Your task to perform on an android device: turn on improve location accuracy Image 0: 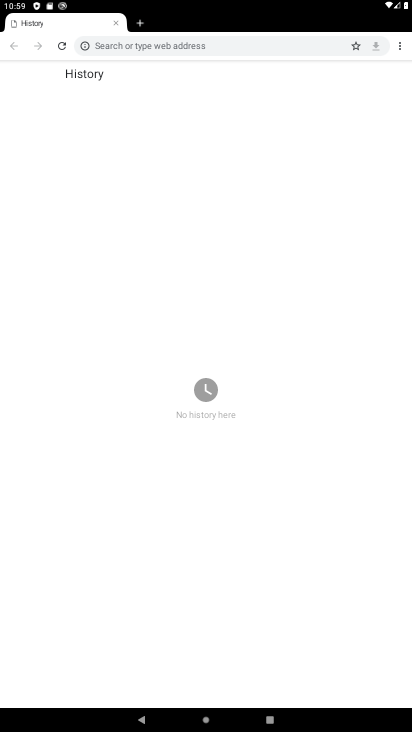
Step 0: press home button
Your task to perform on an android device: turn on improve location accuracy Image 1: 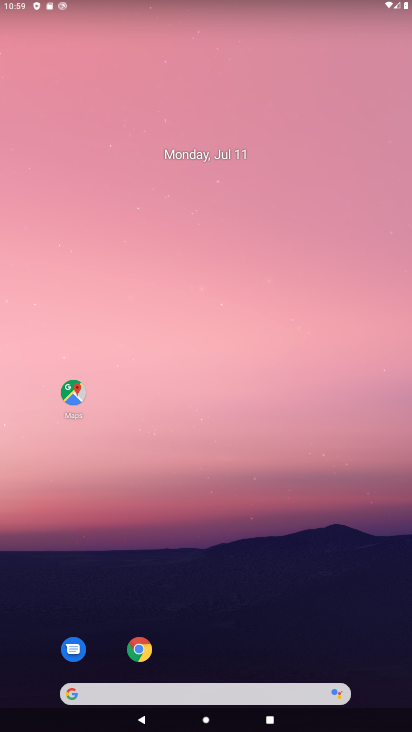
Step 1: drag from (230, 645) to (311, 93)
Your task to perform on an android device: turn on improve location accuracy Image 2: 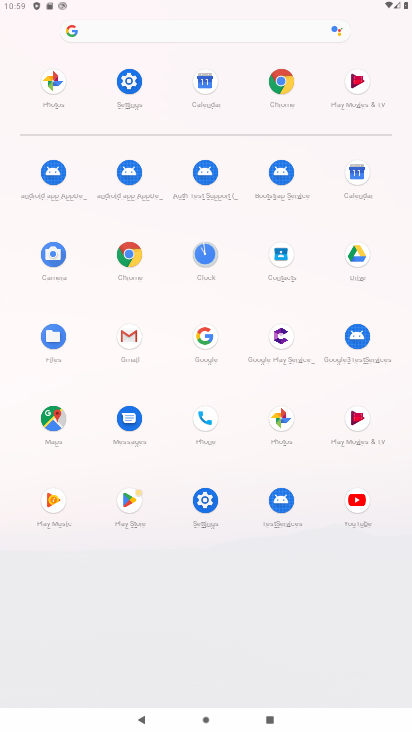
Step 2: click (131, 81)
Your task to perform on an android device: turn on improve location accuracy Image 3: 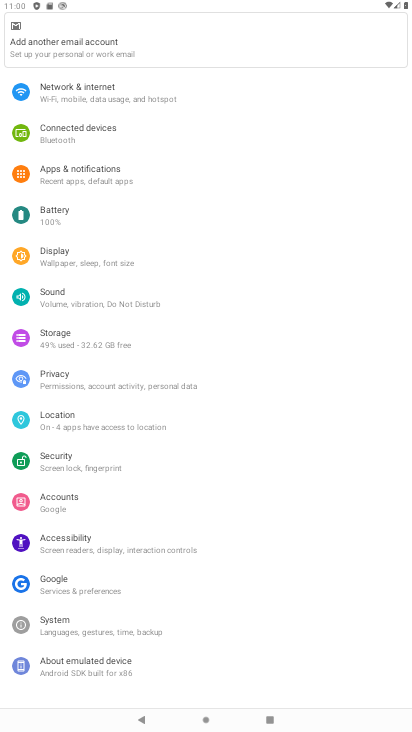
Step 3: click (58, 416)
Your task to perform on an android device: turn on improve location accuracy Image 4: 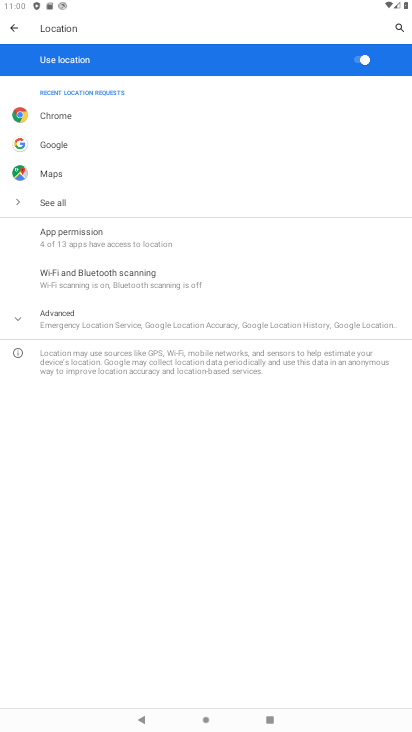
Step 4: click (64, 319)
Your task to perform on an android device: turn on improve location accuracy Image 5: 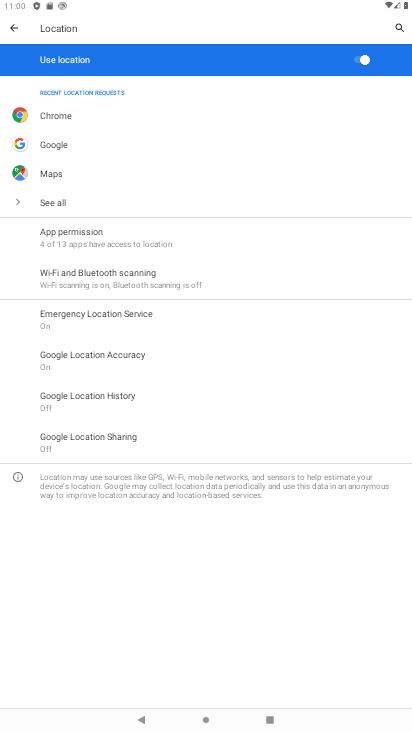
Step 5: click (75, 359)
Your task to perform on an android device: turn on improve location accuracy Image 6: 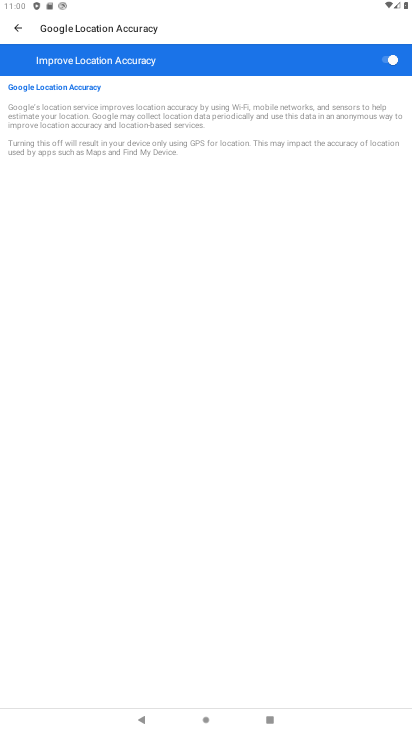
Step 6: task complete